Your task to perform on an android device: Search for the best selling TV on Best Buy. Image 0: 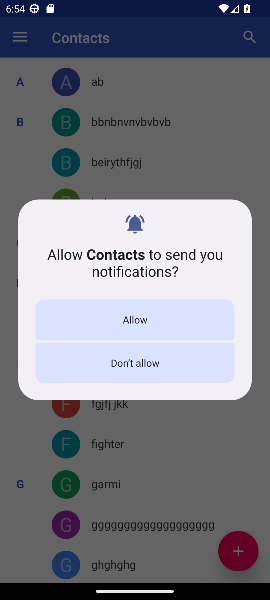
Step 0: press home button
Your task to perform on an android device: Search for the best selling TV on Best Buy. Image 1: 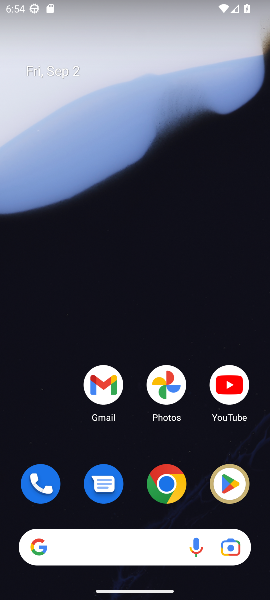
Step 1: click (163, 481)
Your task to perform on an android device: Search for the best selling TV on Best Buy. Image 2: 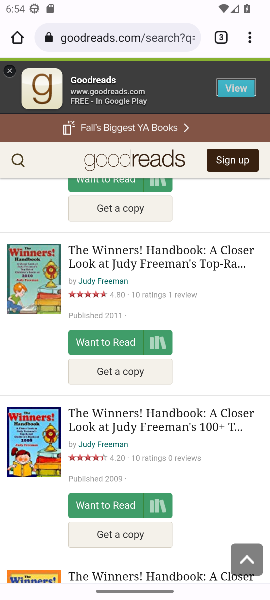
Step 2: click (147, 32)
Your task to perform on an android device: Search for the best selling TV on Best Buy. Image 3: 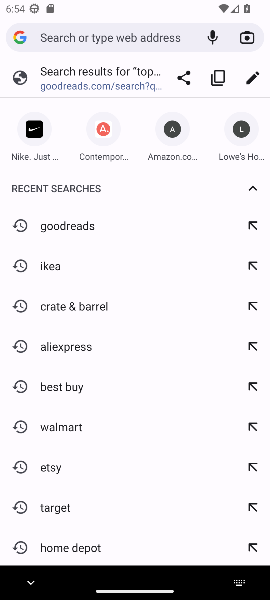
Step 3: type " Best Buy"
Your task to perform on an android device: Search for the best selling TV on Best Buy. Image 4: 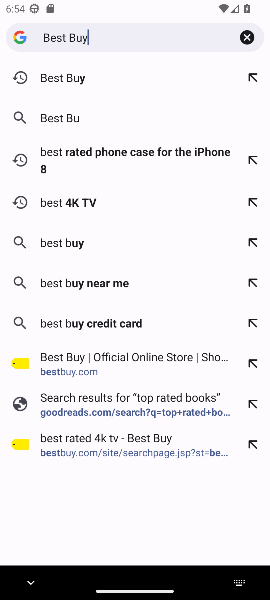
Step 4: press enter
Your task to perform on an android device: Search for the best selling TV on Best Buy. Image 5: 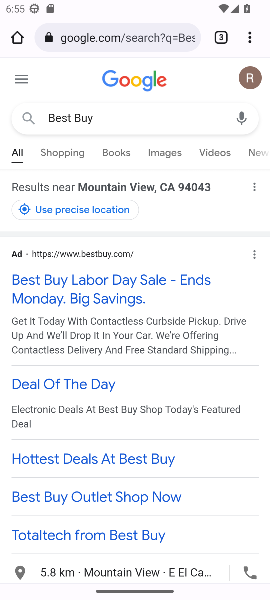
Step 5: drag from (86, 457) to (206, 167)
Your task to perform on an android device: Search for the best selling TV on Best Buy. Image 6: 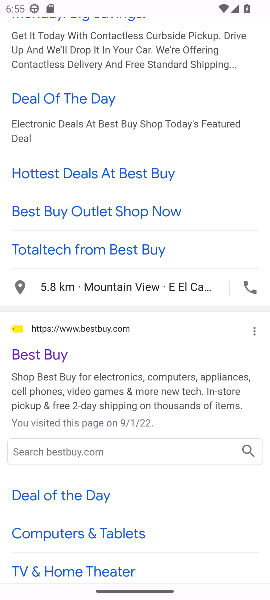
Step 6: click (60, 354)
Your task to perform on an android device: Search for the best selling TV on Best Buy. Image 7: 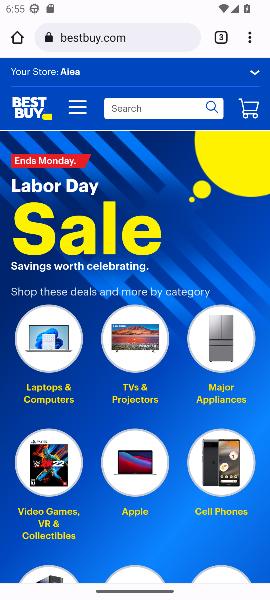
Step 7: click (143, 103)
Your task to perform on an android device: Search for the best selling TV on Best Buy. Image 8: 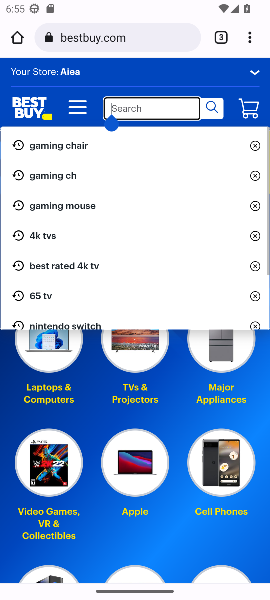
Step 8: click (144, 104)
Your task to perform on an android device: Search for the best selling TV on Best Buy. Image 9: 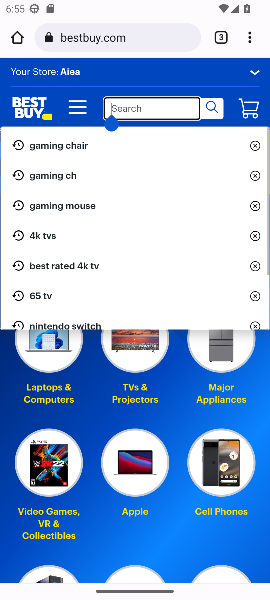
Step 9: click (186, 107)
Your task to perform on an android device: Search for the best selling TV on Best Buy. Image 10: 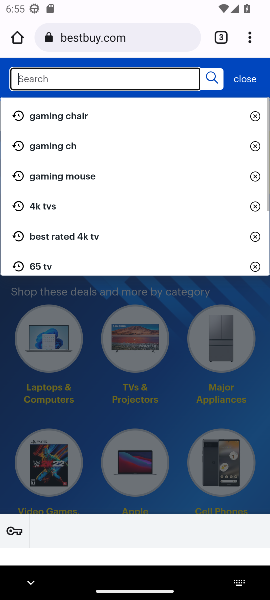
Step 10: type "TV"
Your task to perform on an android device: Search for the best selling TV on Best Buy. Image 11: 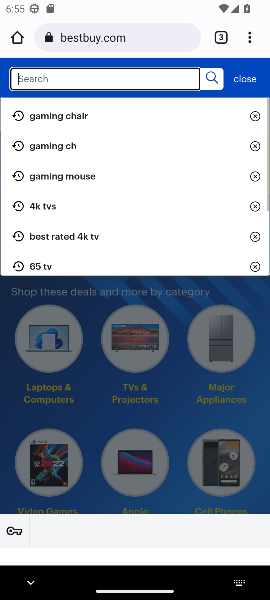
Step 11: press enter
Your task to perform on an android device: Search for the best selling TV on Best Buy. Image 12: 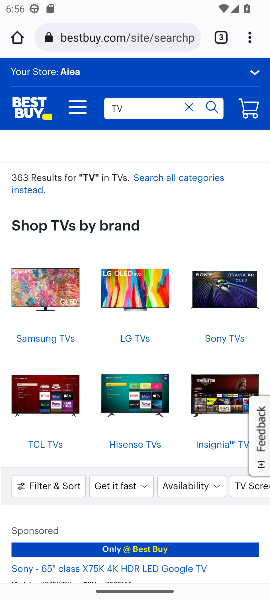
Step 12: task complete